Your task to perform on an android device: search for starred emails in the gmail app Image 0: 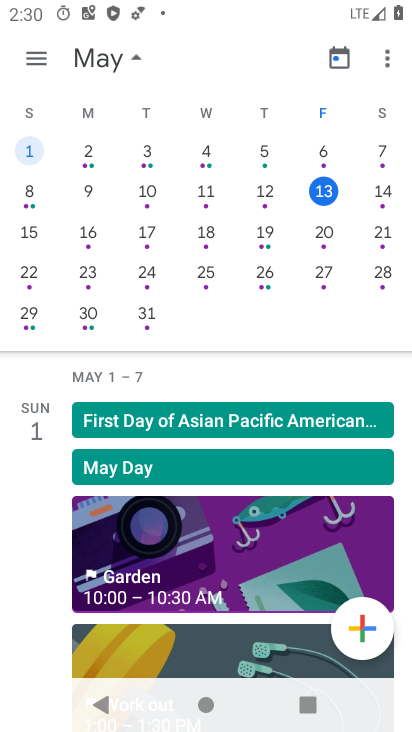
Step 0: press home button
Your task to perform on an android device: search for starred emails in the gmail app Image 1: 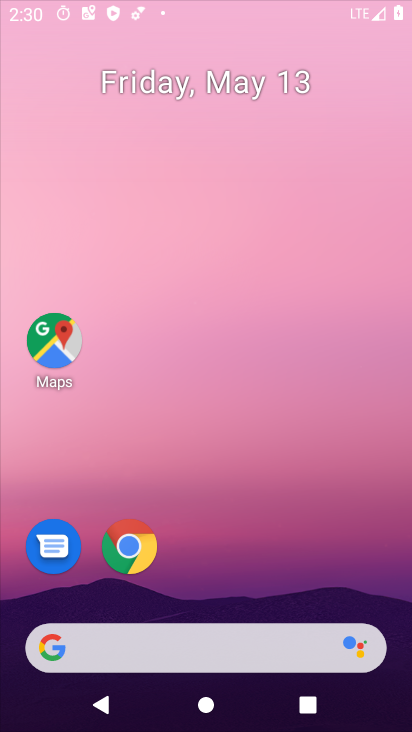
Step 1: drag from (166, 390) to (167, 255)
Your task to perform on an android device: search for starred emails in the gmail app Image 2: 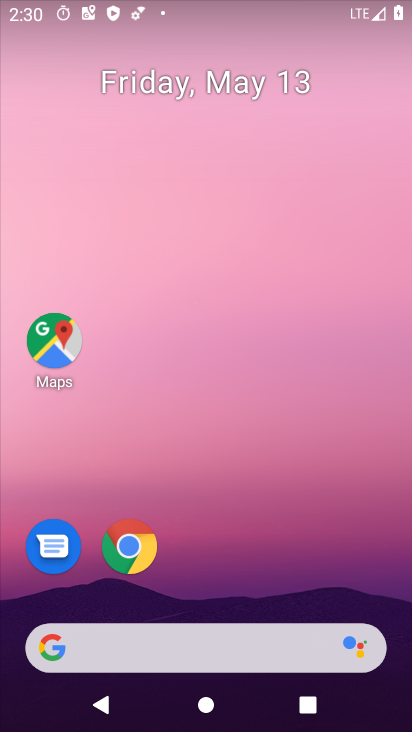
Step 2: drag from (289, 639) to (269, 189)
Your task to perform on an android device: search for starred emails in the gmail app Image 3: 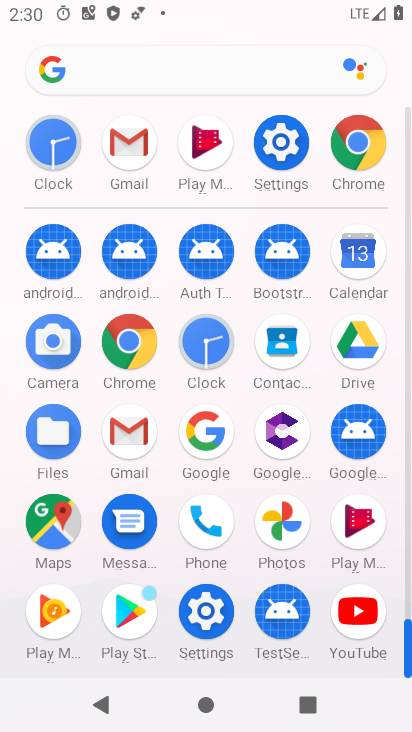
Step 3: drag from (237, 531) to (228, 333)
Your task to perform on an android device: search for starred emails in the gmail app Image 4: 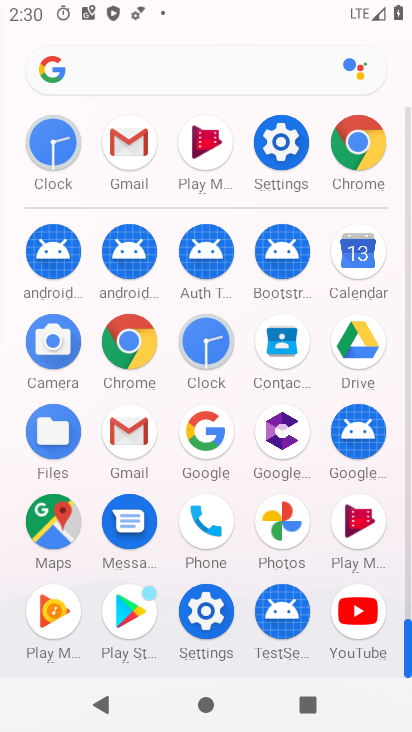
Step 4: drag from (226, 328) to (252, 541)
Your task to perform on an android device: search for starred emails in the gmail app Image 5: 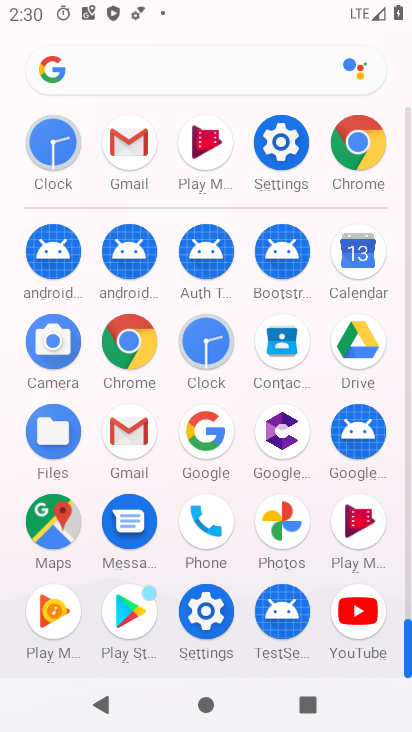
Step 5: click (139, 426)
Your task to perform on an android device: search for starred emails in the gmail app Image 6: 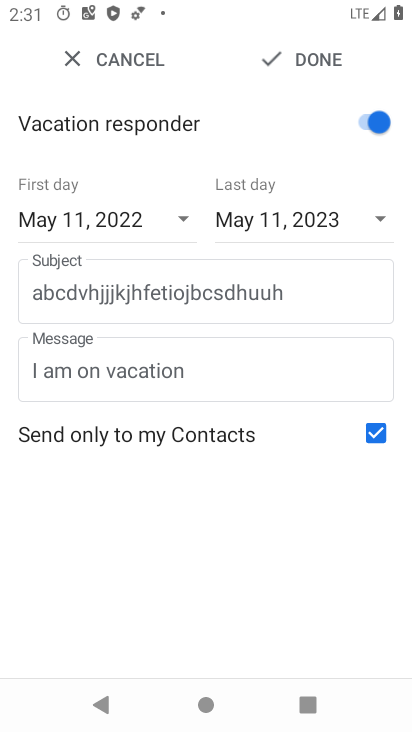
Step 6: click (91, 57)
Your task to perform on an android device: search for starred emails in the gmail app Image 7: 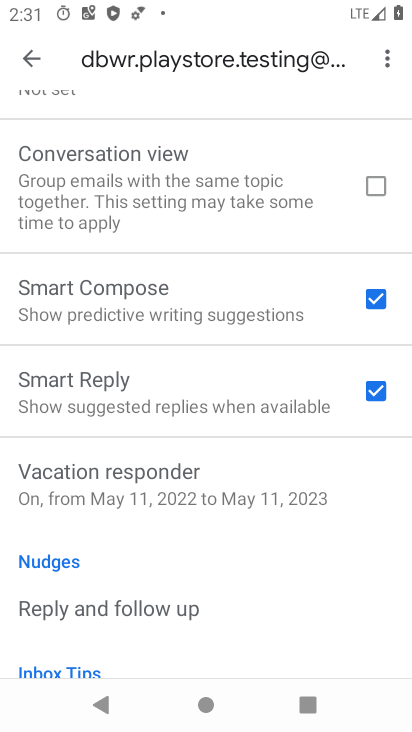
Step 7: click (31, 55)
Your task to perform on an android device: search for starred emails in the gmail app Image 8: 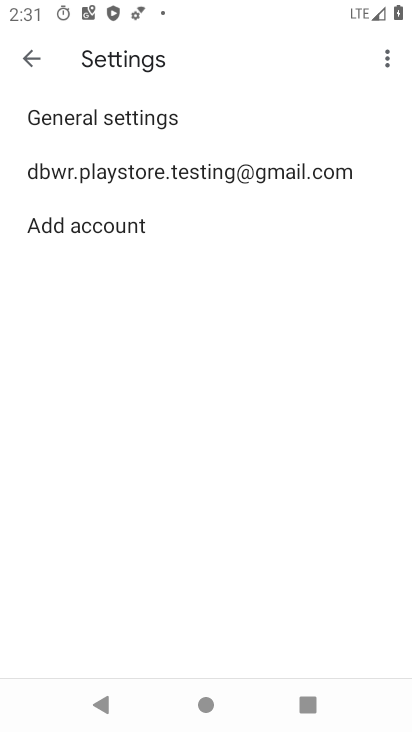
Step 8: click (21, 49)
Your task to perform on an android device: search for starred emails in the gmail app Image 9: 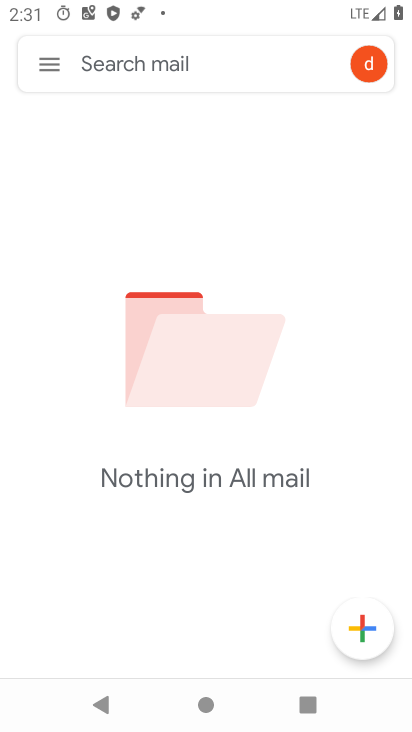
Step 9: click (46, 81)
Your task to perform on an android device: search for starred emails in the gmail app Image 10: 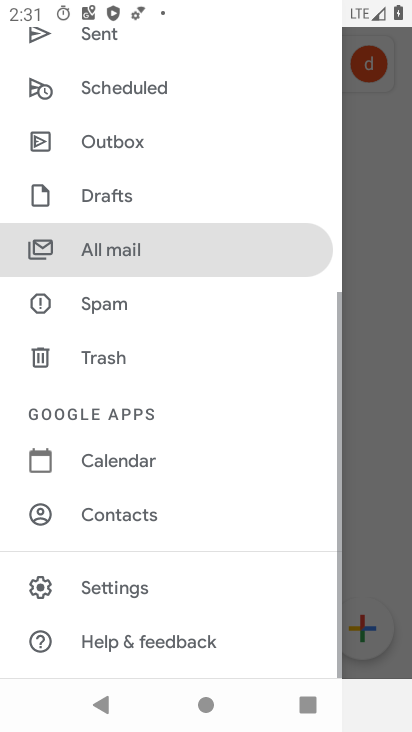
Step 10: drag from (141, 298) to (142, 623)
Your task to perform on an android device: search for starred emails in the gmail app Image 11: 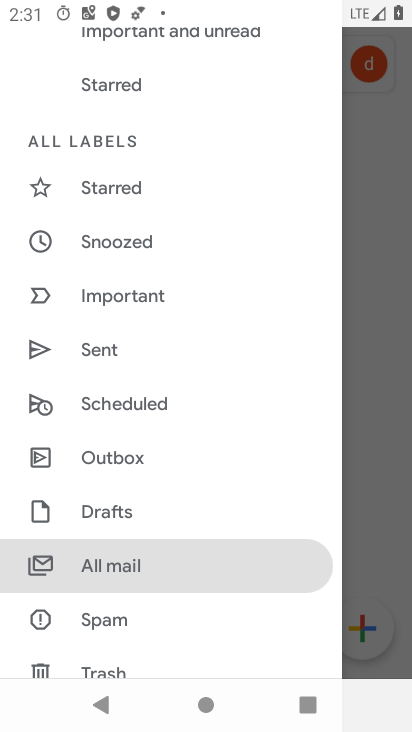
Step 11: click (128, 198)
Your task to perform on an android device: search for starred emails in the gmail app Image 12: 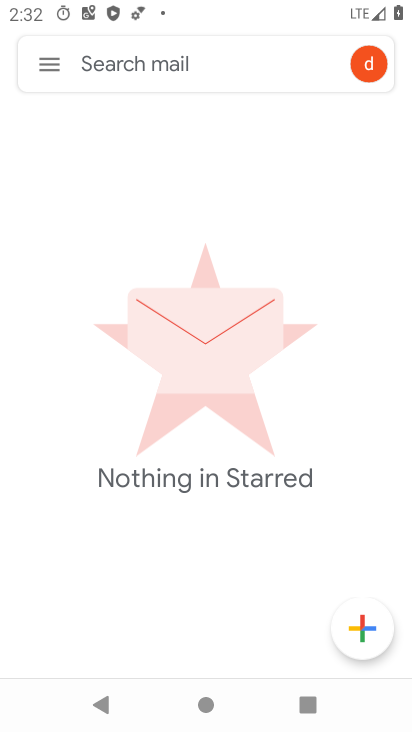
Step 12: task complete